Your task to perform on an android device: empty trash in the gmail app Image 0: 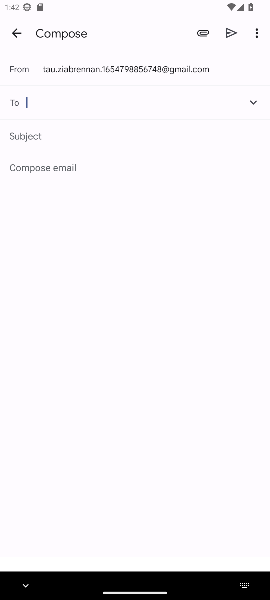
Step 0: click (13, 31)
Your task to perform on an android device: empty trash in the gmail app Image 1: 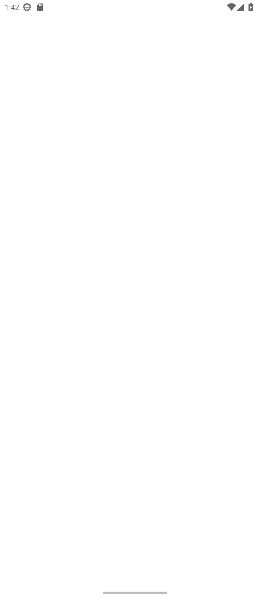
Step 1: click (13, 31)
Your task to perform on an android device: empty trash in the gmail app Image 2: 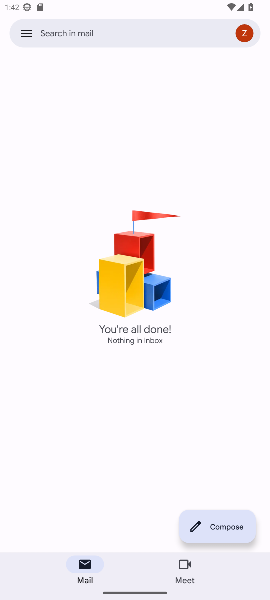
Step 2: click (25, 33)
Your task to perform on an android device: empty trash in the gmail app Image 3: 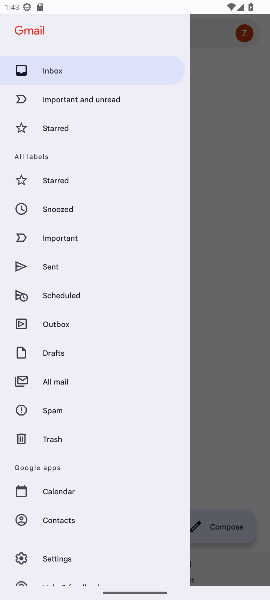
Step 3: click (51, 436)
Your task to perform on an android device: empty trash in the gmail app Image 4: 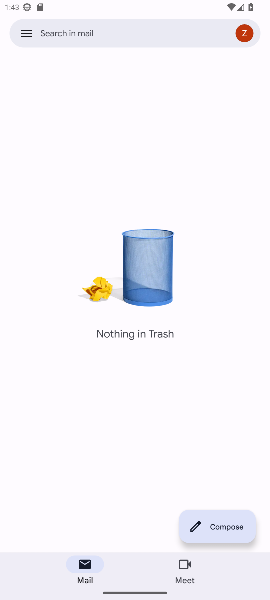
Step 4: task complete